Your task to perform on an android device: check the backup settings in the google photos Image 0: 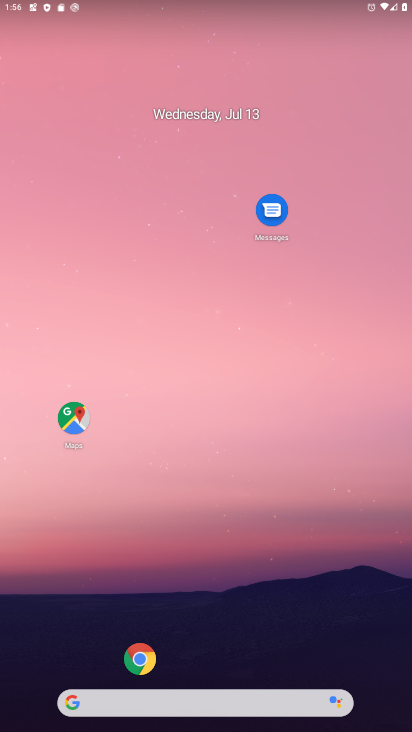
Step 0: drag from (68, 679) to (296, 0)
Your task to perform on an android device: check the backup settings in the google photos Image 1: 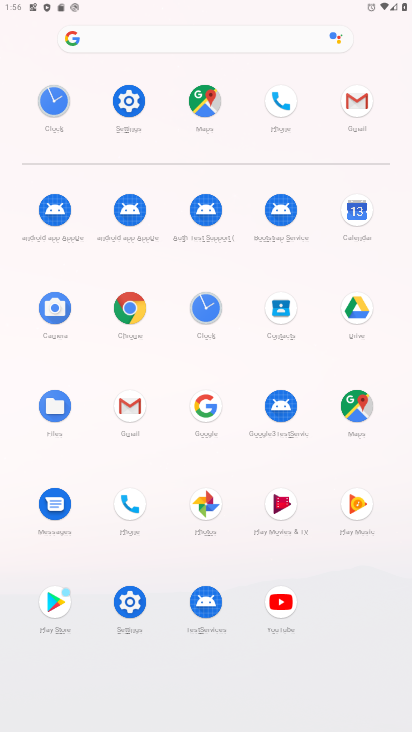
Step 1: click (213, 500)
Your task to perform on an android device: check the backup settings in the google photos Image 2: 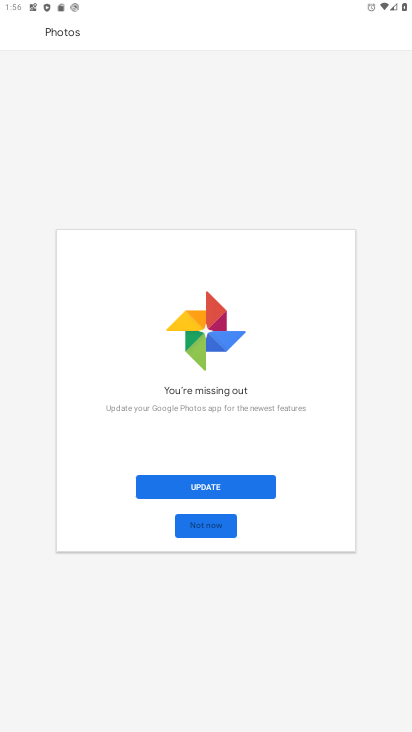
Step 2: click (194, 522)
Your task to perform on an android device: check the backup settings in the google photos Image 3: 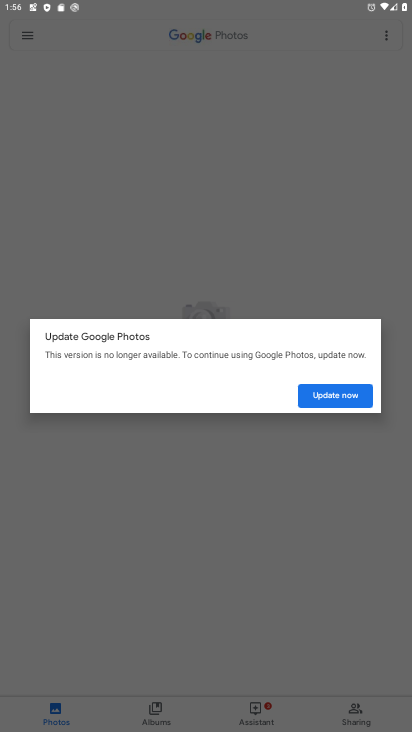
Step 3: click (335, 402)
Your task to perform on an android device: check the backup settings in the google photos Image 4: 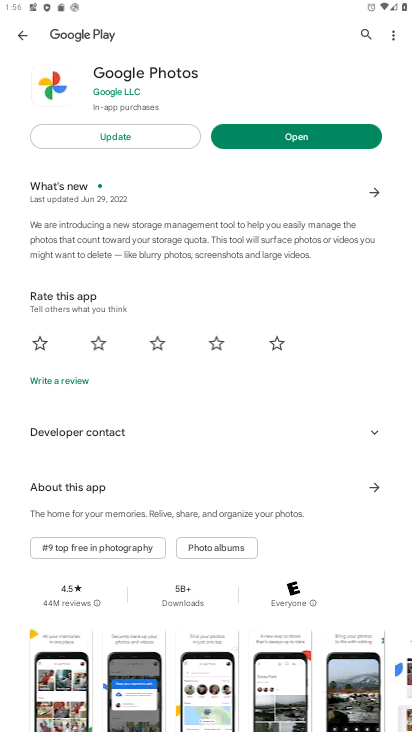
Step 4: click (314, 132)
Your task to perform on an android device: check the backup settings in the google photos Image 5: 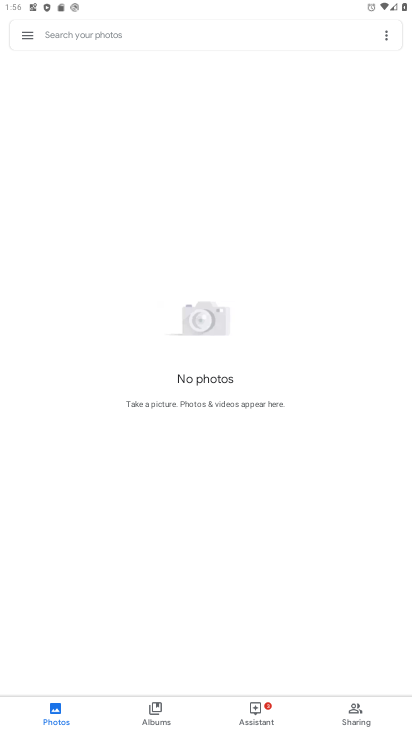
Step 5: click (29, 40)
Your task to perform on an android device: check the backup settings in the google photos Image 6: 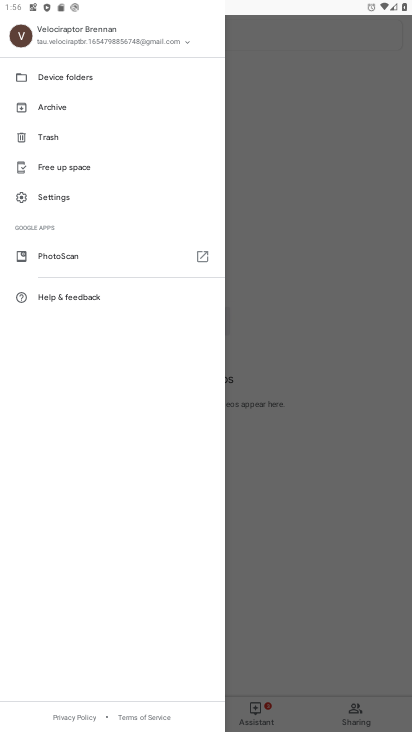
Step 6: click (64, 175)
Your task to perform on an android device: check the backup settings in the google photos Image 7: 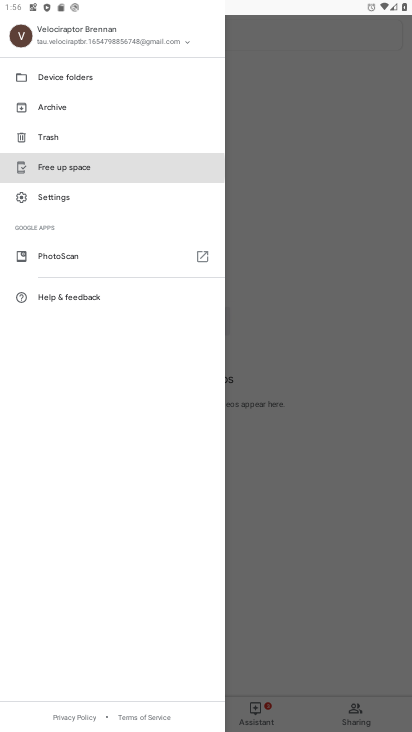
Step 7: click (63, 193)
Your task to perform on an android device: check the backup settings in the google photos Image 8: 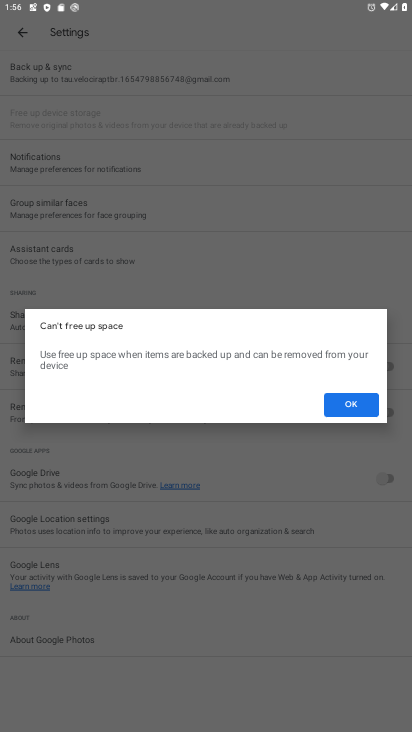
Step 8: click (338, 399)
Your task to perform on an android device: check the backup settings in the google photos Image 9: 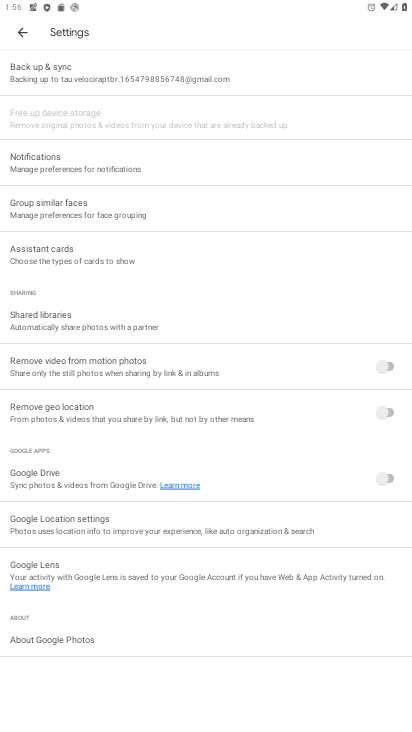
Step 9: task complete